Your task to perform on an android device: turn pop-ups off in chrome Image 0: 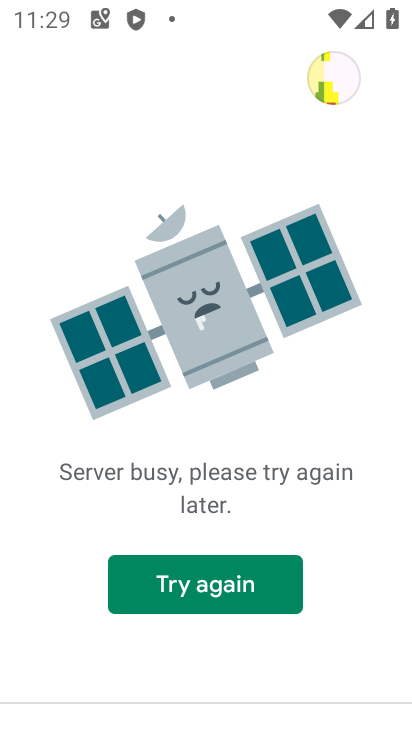
Step 0: press home button
Your task to perform on an android device: turn pop-ups off in chrome Image 1: 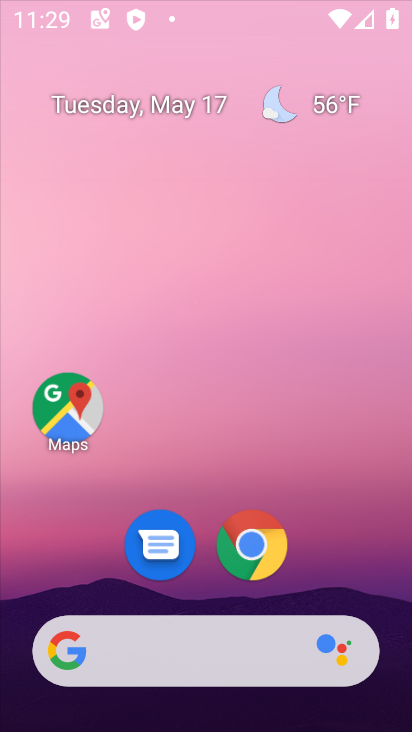
Step 1: drag from (251, 558) to (235, 99)
Your task to perform on an android device: turn pop-ups off in chrome Image 2: 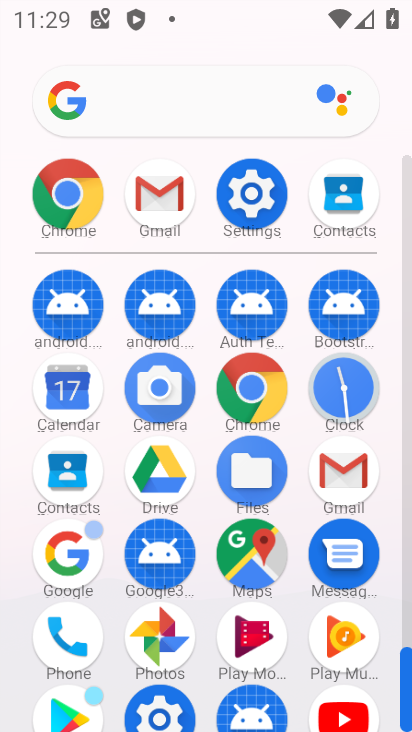
Step 2: click (93, 192)
Your task to perform on an android device: turn pop-ups off in chrome Image 3: 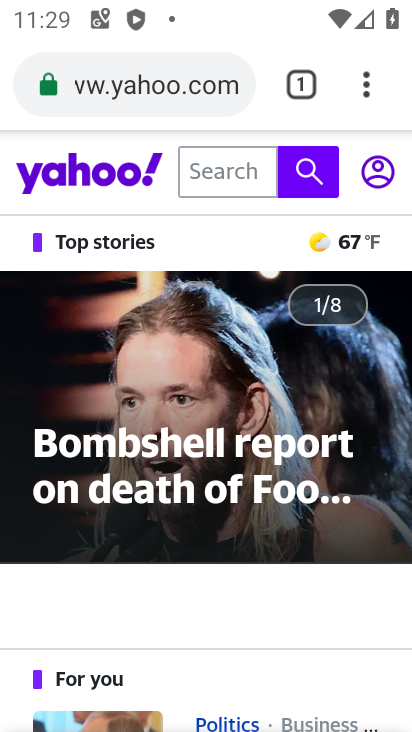
Step 3: click (360, 77)
Your task to perform on an android device: turn pop-ups off in chrome Image 4: 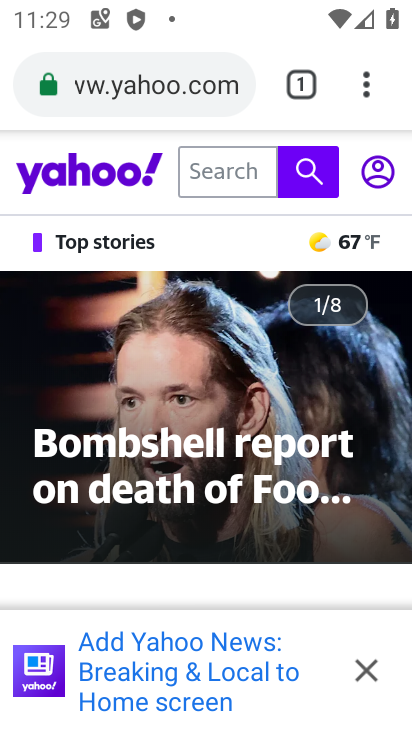
Step 4: click (372, 89)
Your task to perform on an android device: turn pop-ups off in chrome Image 5: 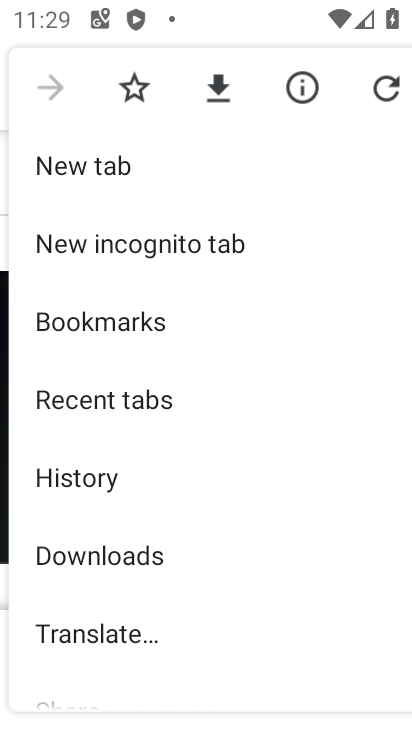
Step 5: drag from (229, 523) to (258, 138)
Your task to perform on an android device: turn pop-ups off in chrome Image 6: 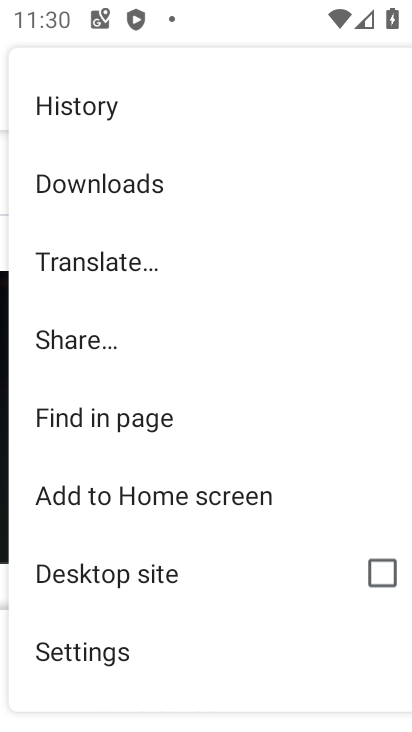
Step 6: drag from (268, 509) to (294, 178)
Your task to perform on an android device: turn pop-ups off in chrome Image 7: 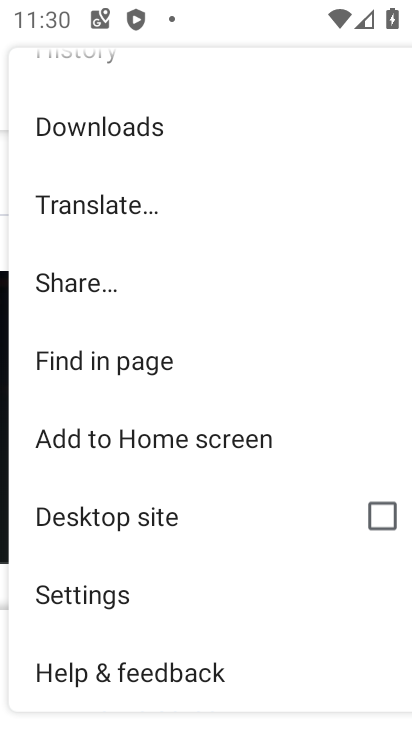
Step 7: click (123, 614)
Your task to perform on an android device: turn pop-ups off in chrome Image 8: 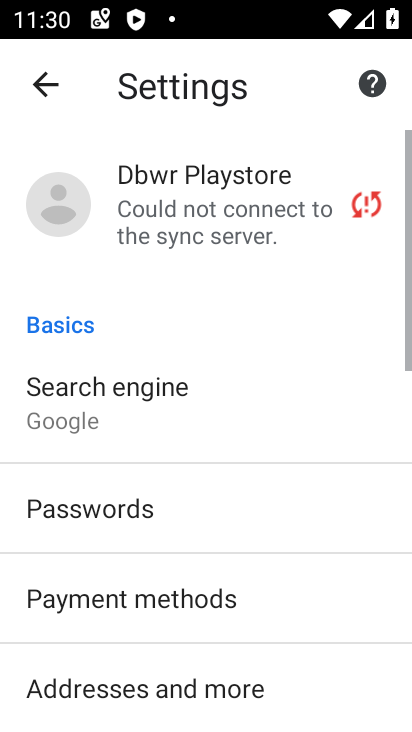
Step 8: drag from (161, 510) to (259, 110)
Your task to perform on an android device: turn pop-ups off in chrome Image 9: 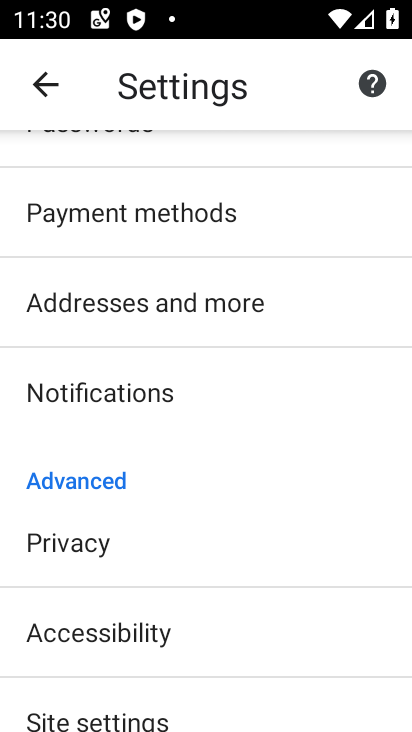
Step 9: drag from (152, 578) to (187, 258)
Your task to perform on an android device: turn pop-ups off in chrome Image 10: 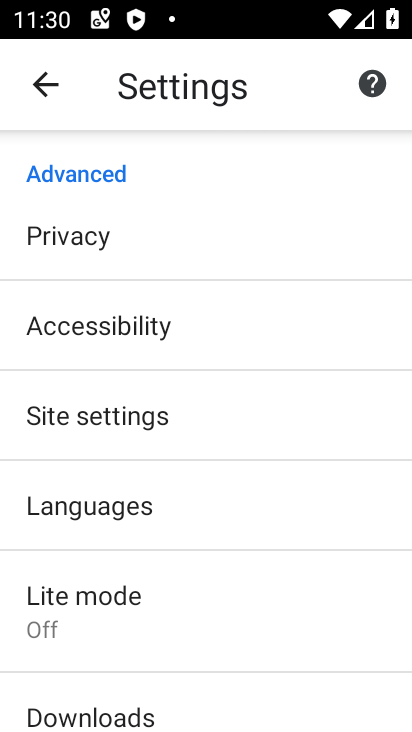
Step 10: click (172, 421)
Your task to perform on an android device: turn pop-ups off in chrome Image 11: 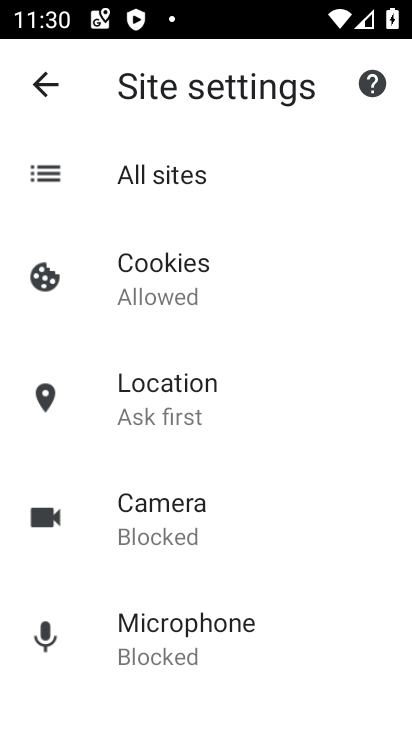
Step 11: drag from (192, 583) to (200, 286)
Your task to perform on an android device: turn pop-ups off in chrome Image 12: 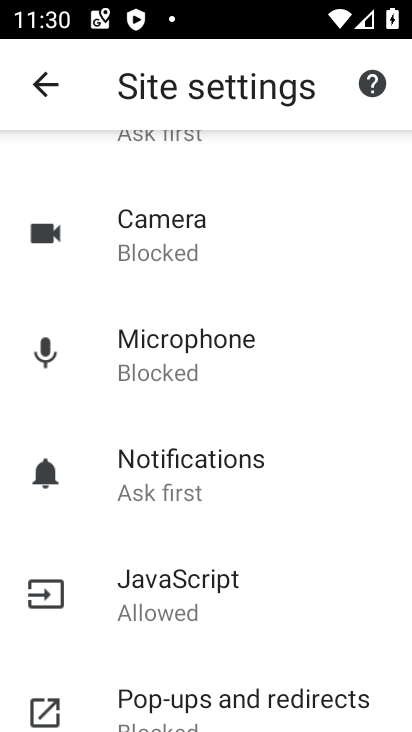
Step 12: drag from (229, 648) to (221, 425)
Your task to perform on an android device: turn pop-ups off in chrome Image 13: 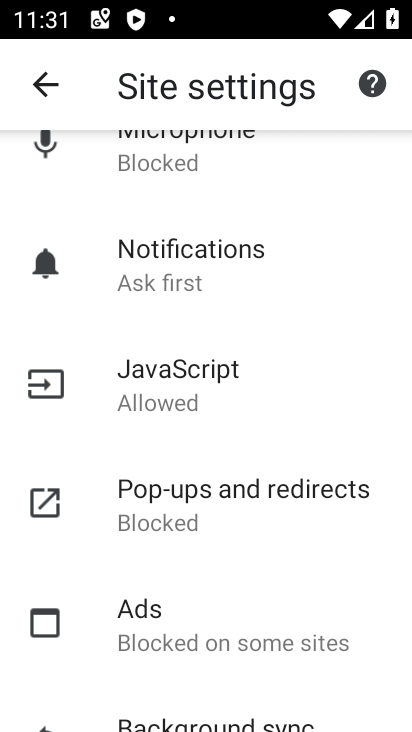
Step 13: click (209, 405)
Your task to perform on an android device: turn pop-ups off in chrome Image 14: 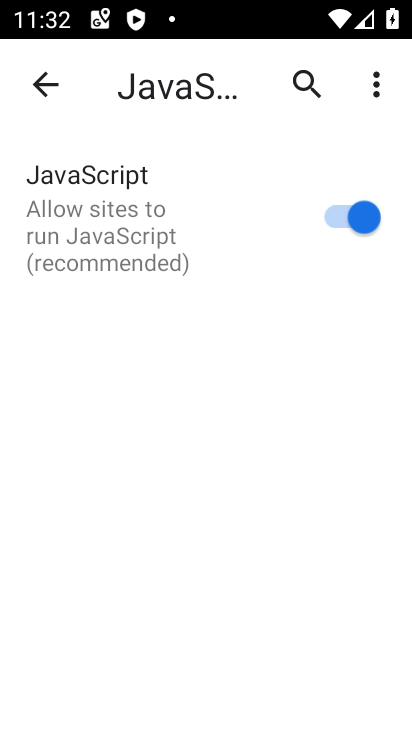
Step 14: click (330, 205)
Your task to perform on an android device: turn pop-ups off in chrome Image 15: 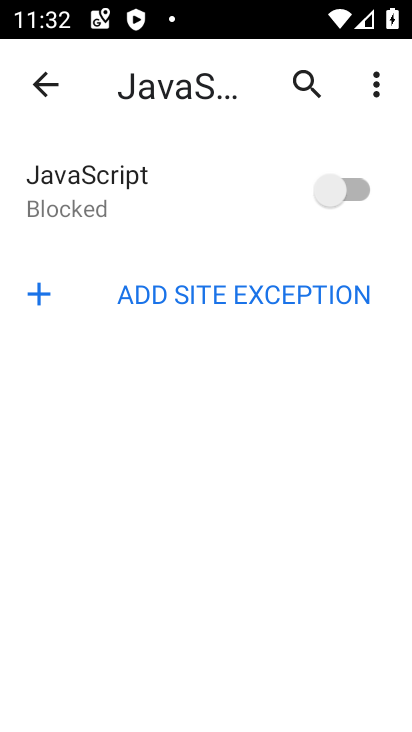
Step 15: task complete